Your task to perform on an android device: Open privacy settings Image 0: 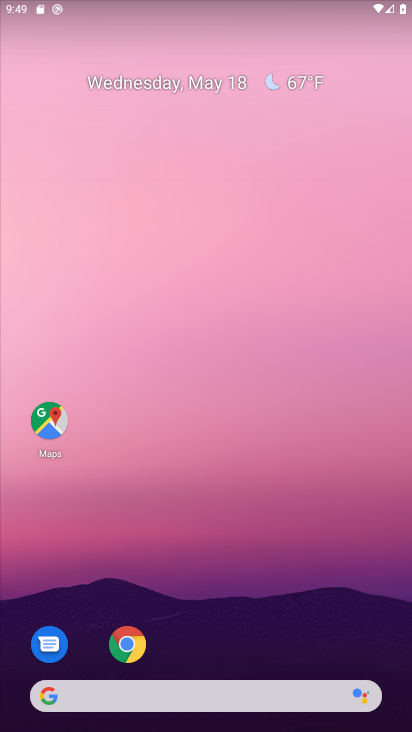
Step 0: drag from (268, 620) to (240, 2)
Your task to perform on an android device: Open privacy settings Image 1: 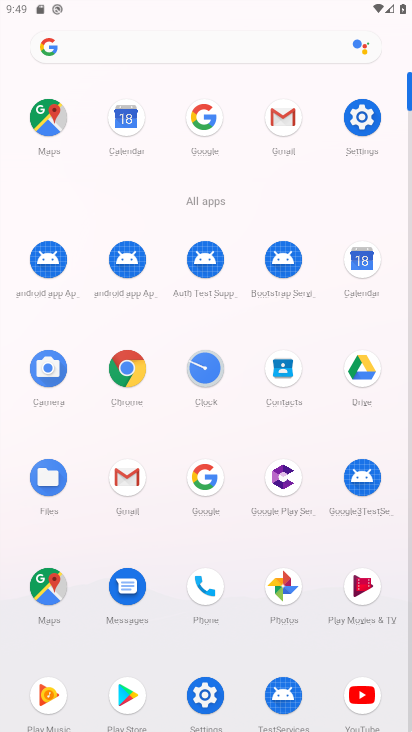
Step 1: click (361, 117)
Your task to perform on an android device: Open privacy settings Image 2: 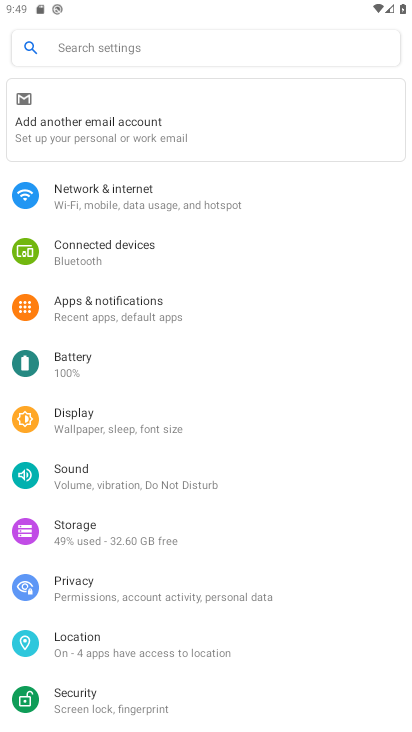
Step 2: drag from (115, 580) to (158, 505)
Your task to perform on an android device: Open privacy settings Image 3: 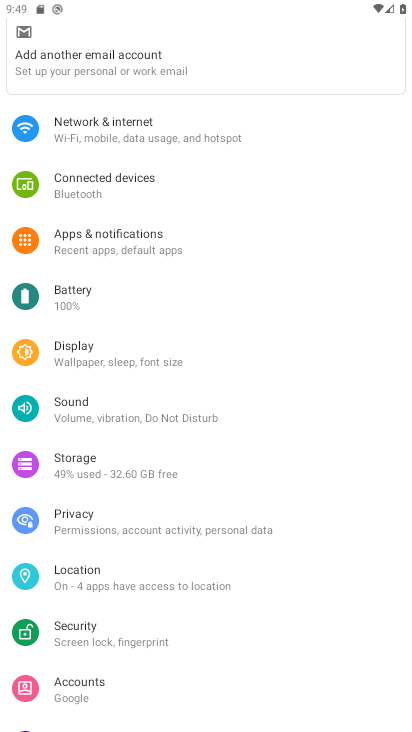
Step 3: click (124, 532)
Your task to perform on an android device: Open privacy settings Image 4: 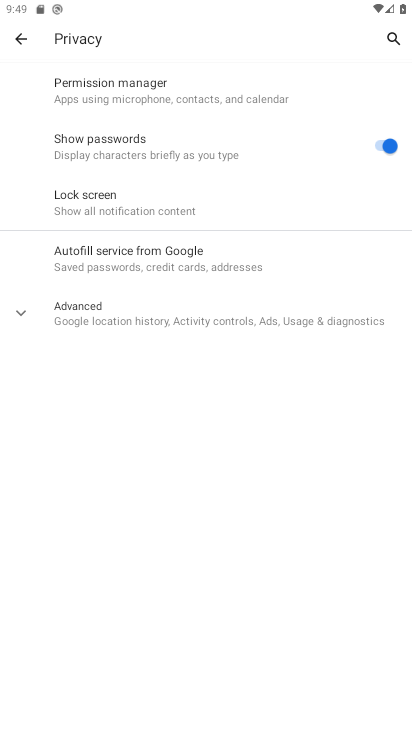
Step 4: task complete